Your task to perform on an android device: Open Youtube and go to the subscriptions tab Image 0: 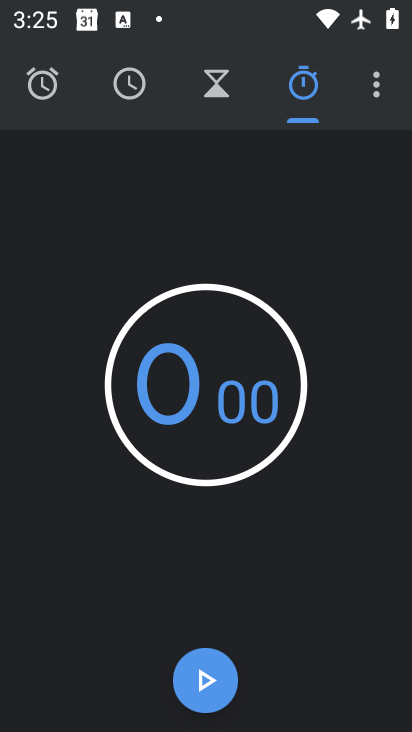
Step 0: press home button
Your task to perform on an android device: Open Youtube and go to the subscriptions tab Image 1: 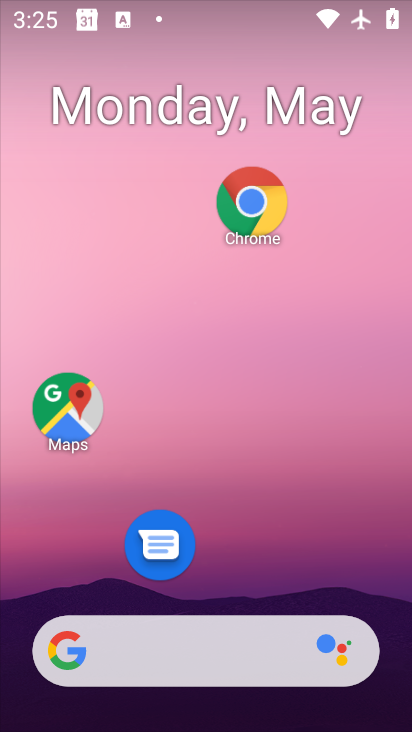
Step 1: drag from (251, 575) to (251, 231)
Your task to perform on an android device: Open Youtube and go to the subscriptions tab Image 2: 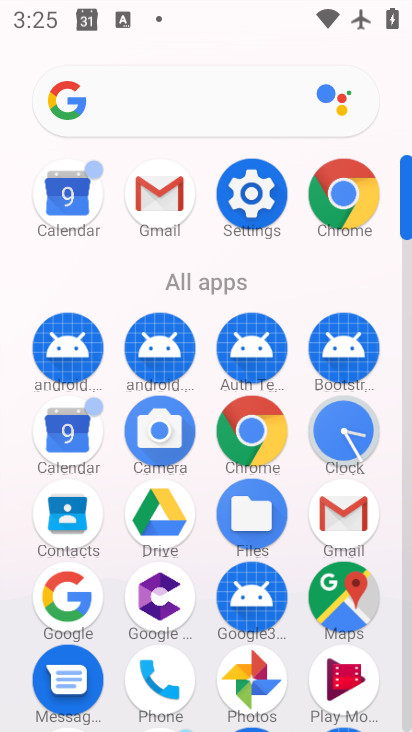
Step 2: drag from (261, 588) to (281, 263)
Your task to perform on an android device: Open Youtube and go to the subscriptions tab Image 3: 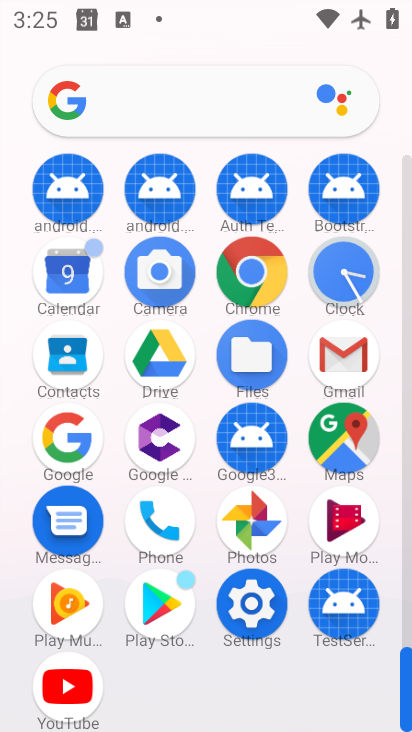
Step 3: click (94, 664)
Your task to perform on an android device: Open Youtube and go to the subscriptions tab Image 4: 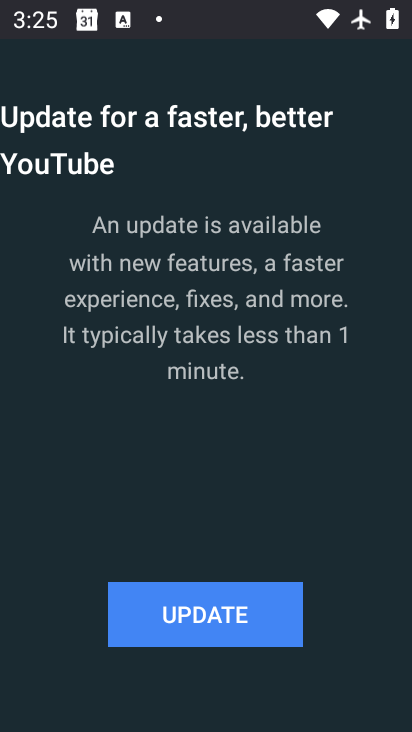
Step 4: click (227, 597)
Your task to perform on an android device: Open Youtube and go to the subscriptions tab Image 5: 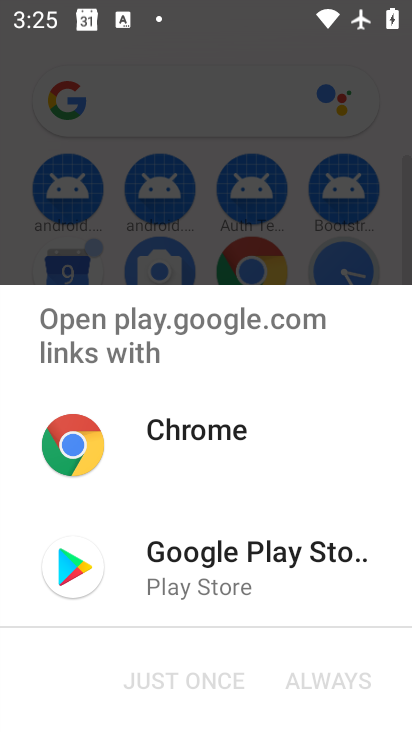
Step 5: click (169, 566)
Your task to perform on an android device: Open Youtube and go to the subscriptions tab Image 6: 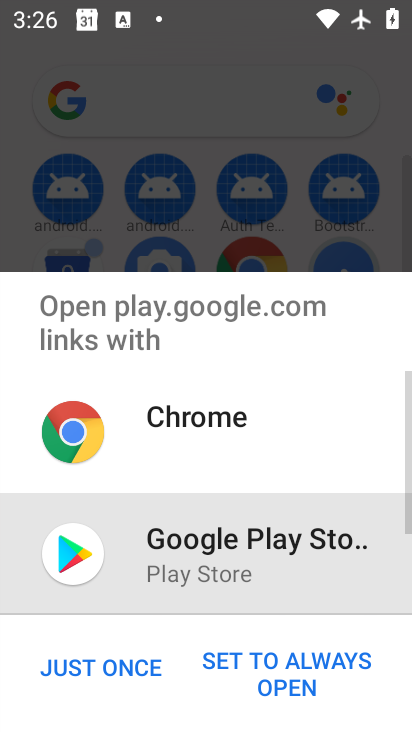
Step 6: click (151, 673)
Your task to perform on an android device: Open Youtube and go to the subscriptions tab Image 7: 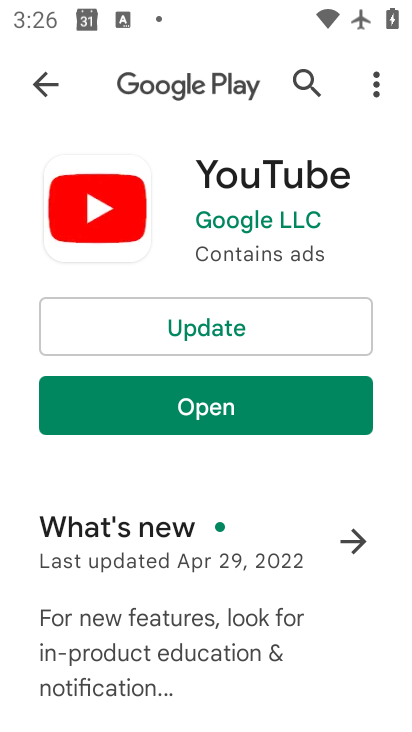
Step 7: click (220, 328)
Your task to perform on an android device: Open Youtube and go to the subscriptions tab Image 8: 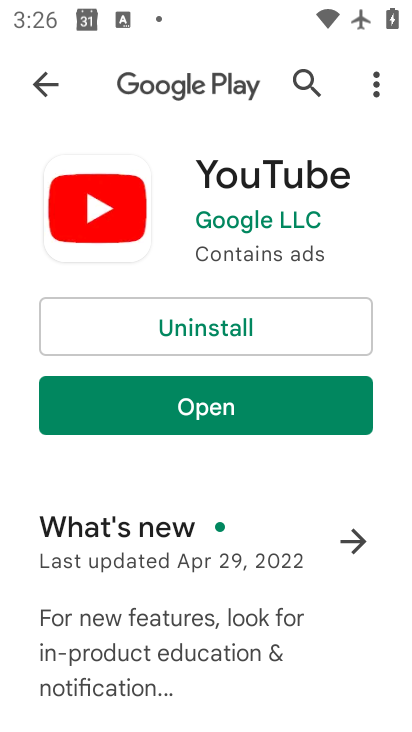
Step 8: click (230, 412)
Your task to perform on an android device: Open Youtube and go to the subscriptions tab Image 9: 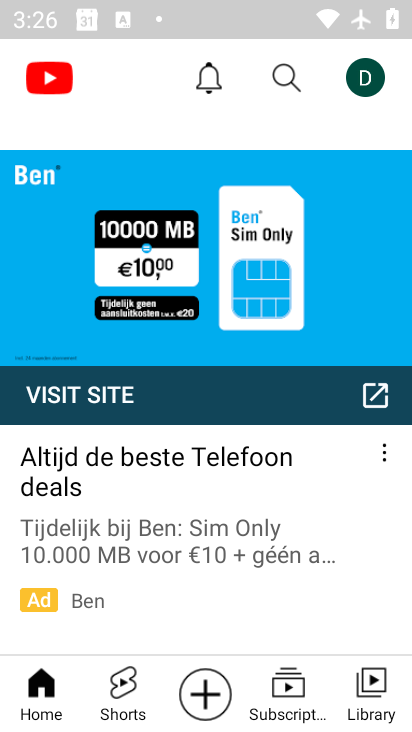
Step 9: click (274, 702)
Your task to perform on an android device: Open Youtube and go to the subscriptions tab Image 10: 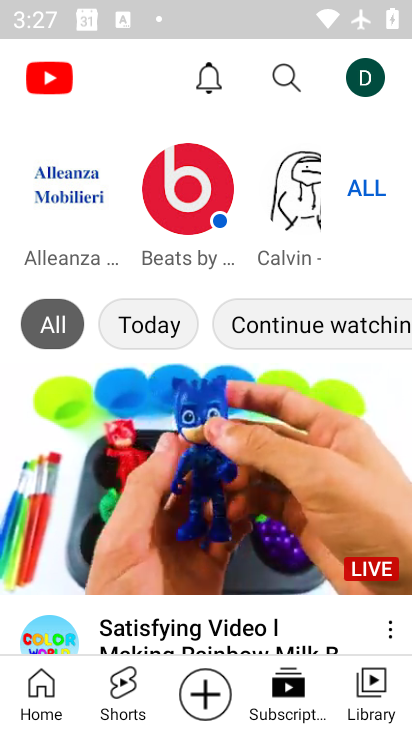
Step 10: task complete